Your task to perform on an android device: Open location settings Image 0: 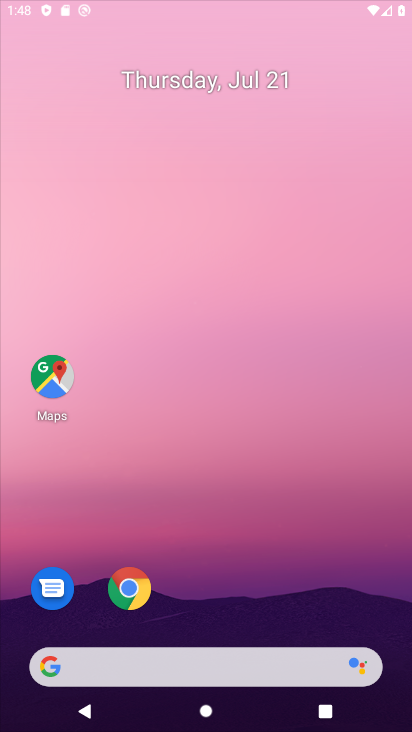
Step 0: click (319, 316)
Your task to perform on an android device: Open location settings Image 1: 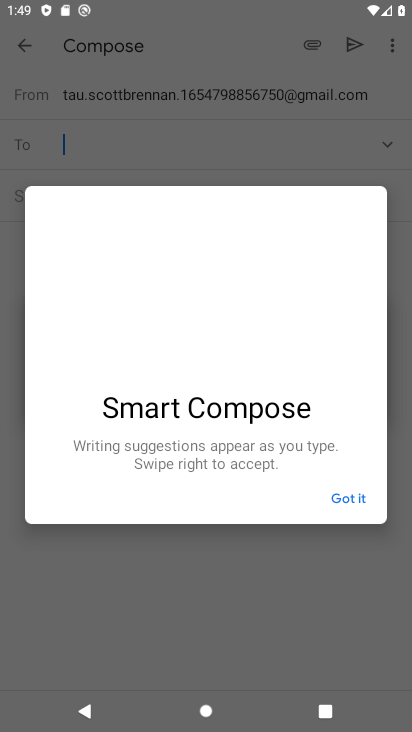
Step 1: drag from (245, 475) to (294, 367)
Your task to perform on an android device: Open location settings Image 2: 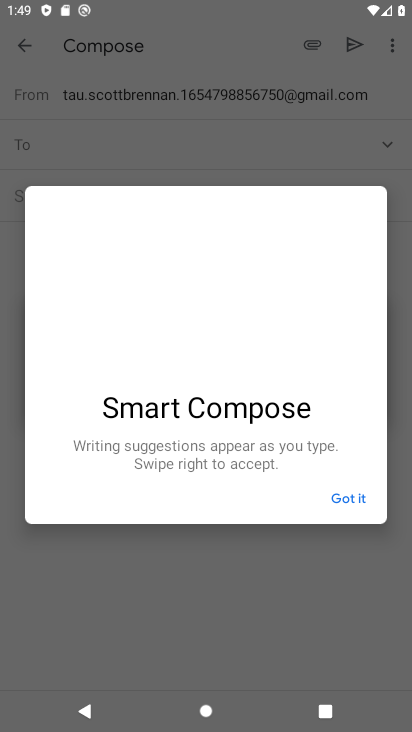
Step 2: click (344, 480)
Your task to perform on an android device: Open location settings Image 3: 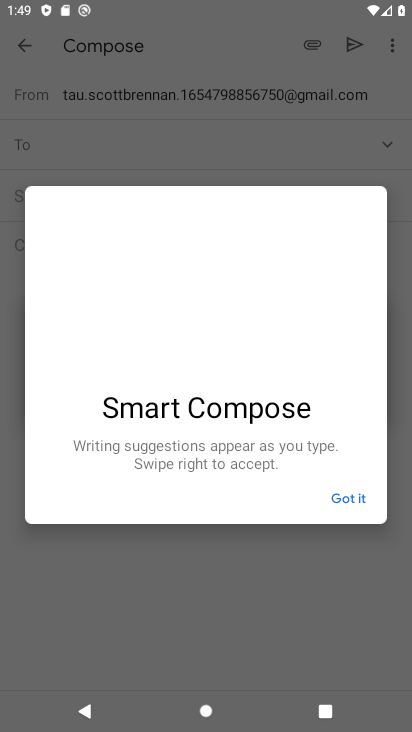
Step 3: click (347, 485)
Your task to perform on an android device: Open location settings Image 4: 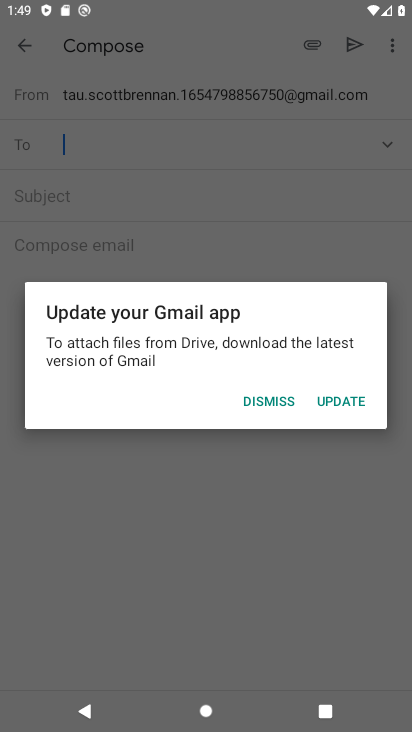
Step 4: drag from (266, 555) to (329, 263)
Your task to perform on an android device: Open location settings Image 5: 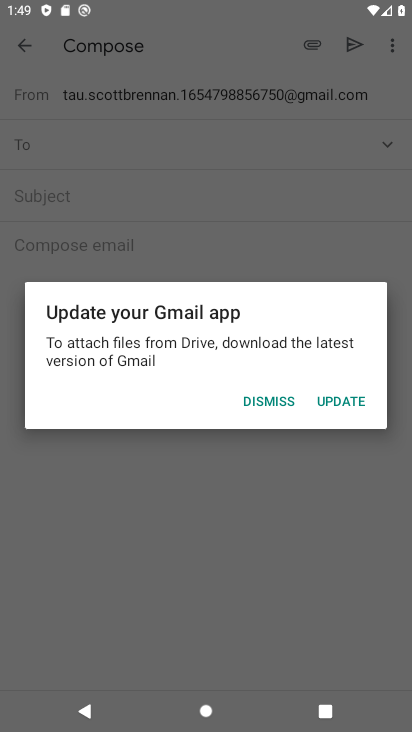
Step 5: click (264, 393)
Your task to perform on an android device: Open location settings Image 6: 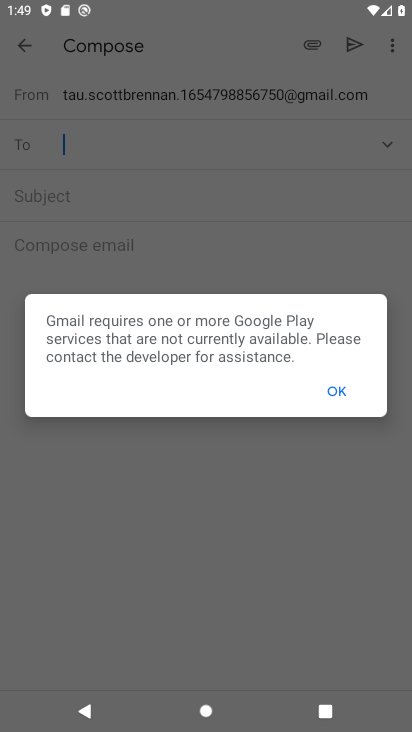
Step 6: drag from (255, 501) to (371, 261)
Your task to perform on an android device: Open location settings Image 7: 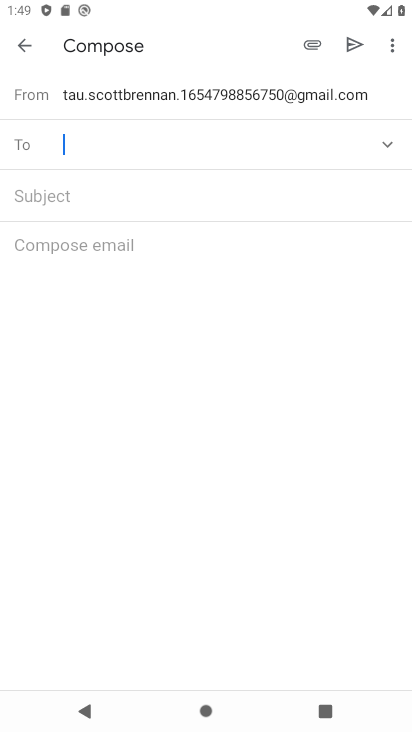
Step 7: drag from (194, 514) to (273, 316)
Your task to perform on an android device: Open location settings Image 8: 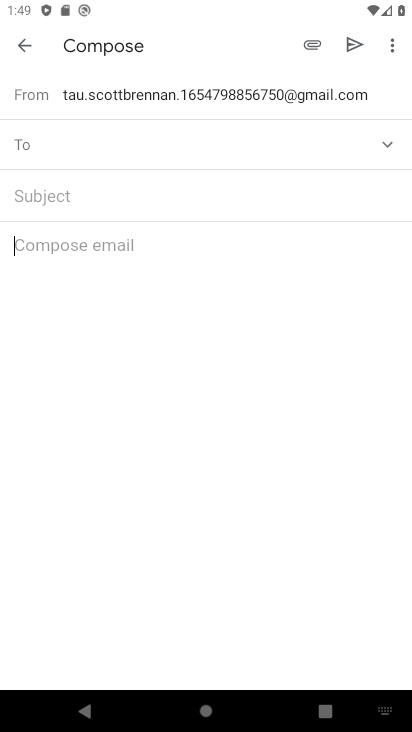
Step 8: press home button
Your task to perform on an android device: Open location settings Image 9: 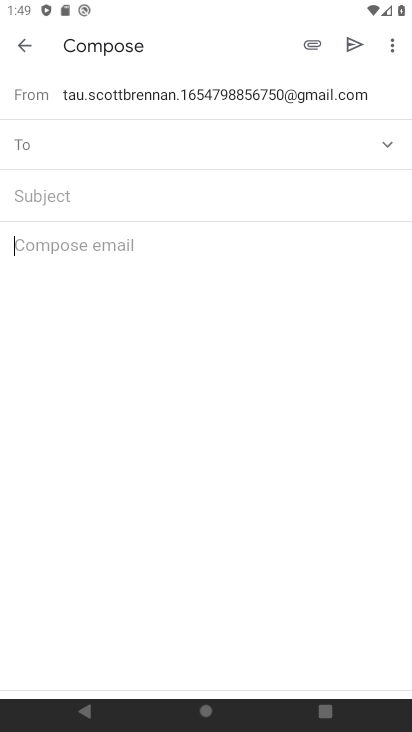
Step 9: drag from (237, 550) to (359, 183)
Your task to perform on an android device: Open location settings Image 10: 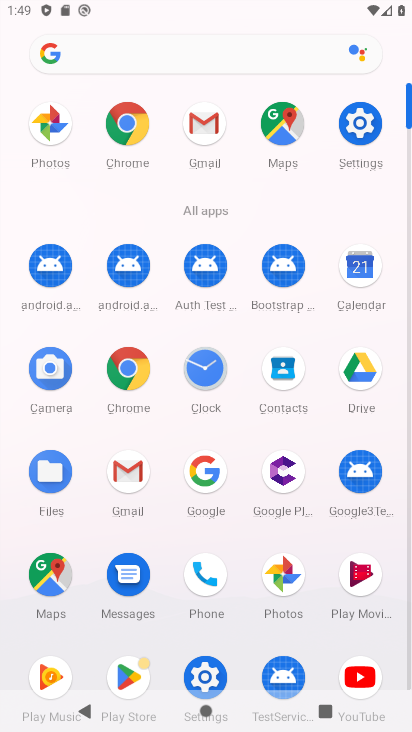
Step 10: click (198, 665)
Your task to perform on an android device: Open location settings Image 11: 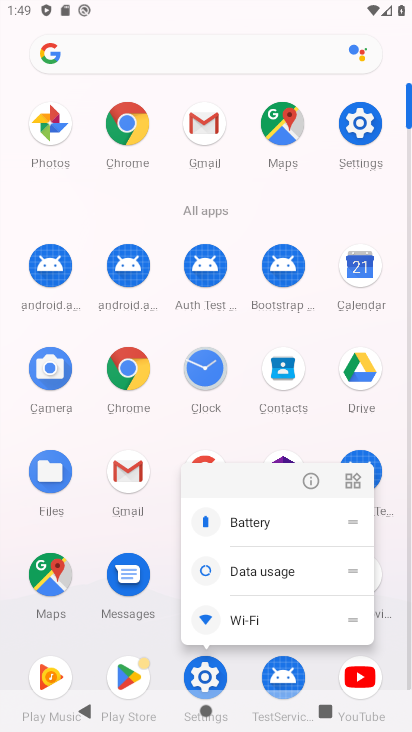
Step 11: click (293, 488)
Your task to perform on an android device: Open location settings Image 12: 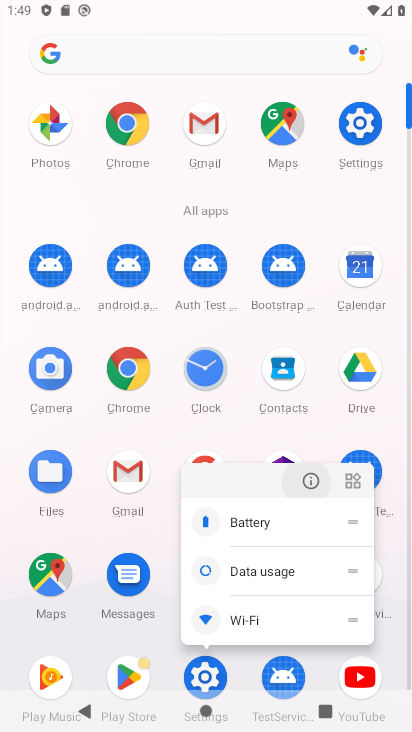
Step 12: click (314, 483)
Your task to perform on an android device: Open location settings Image 13: 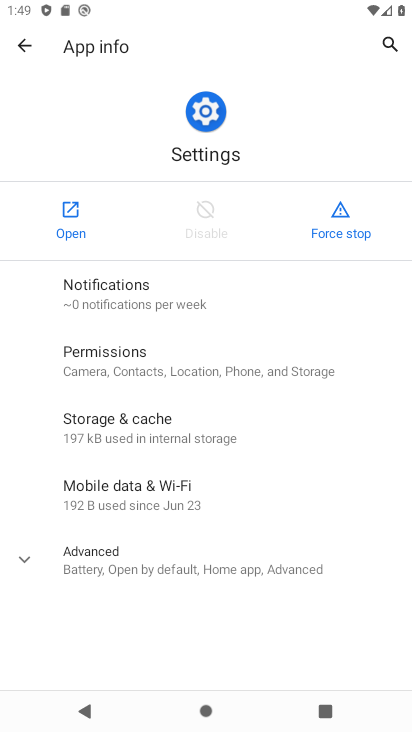
Step 13: click (60, 220)
Your task to perform on an android device: Open location settings Image 14: 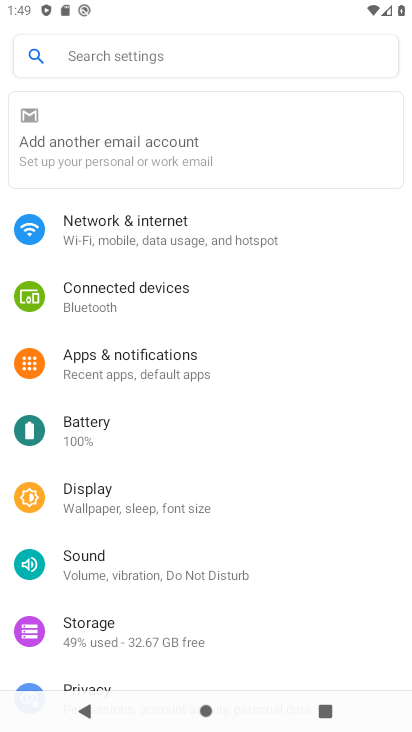
Step 14: drag from (188, 544) to (293, 154)
Your task to perform on an android device: Open location settings Image 15: 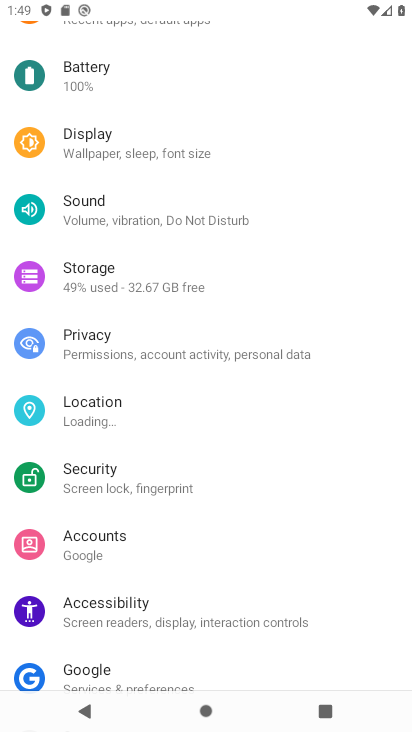
Step 15: drag from (207, 190) to (199, 644)
Your task to perform on an android device: Open location settings Image 16: 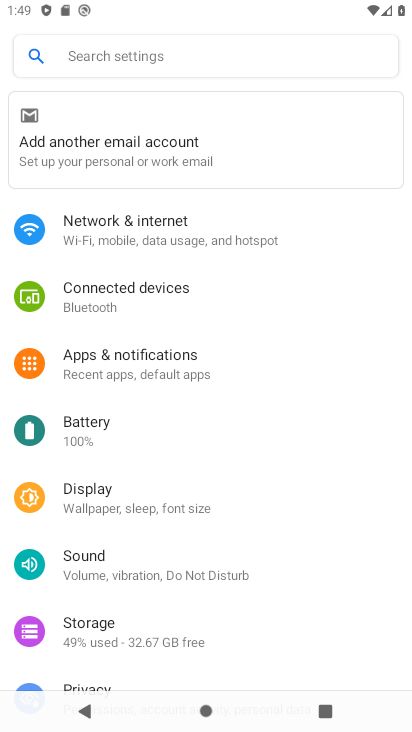
Step 16: drag from (139, 648) to (274, 73)
Your task to perform on an android device: Open location settings Image 17: 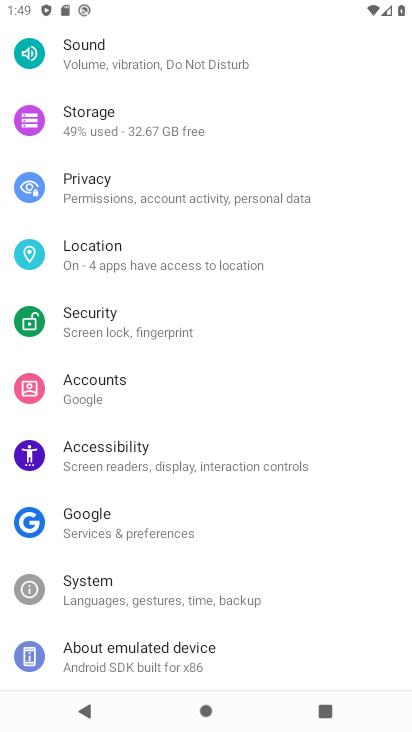
Step 17: click (162, 254)
Your task to perform on an android device: Open location settings Image 18: 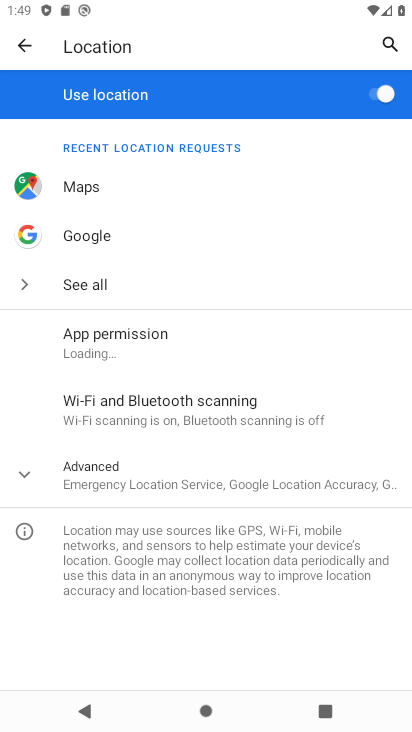
Step 18: click (132, 489)
Your task to perform on an android device: Open location settings Image 19: 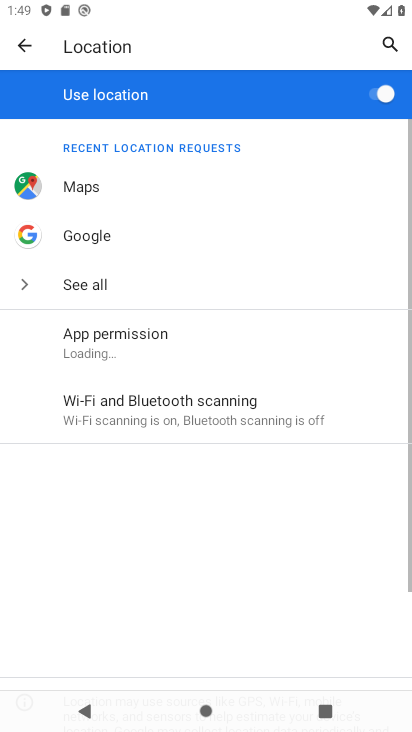
Step 19: task complete